Your task to perform on an android device: check storage Image 0: 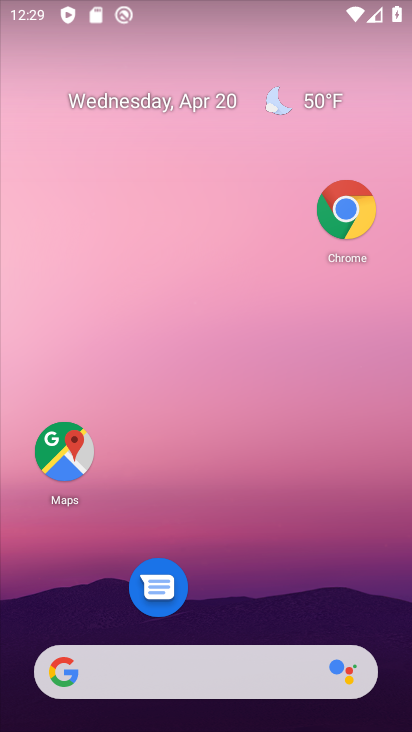
Step 0: drag from (237, 626) to (290, 201)
Your task to perform on an android device: check storage Image 1: 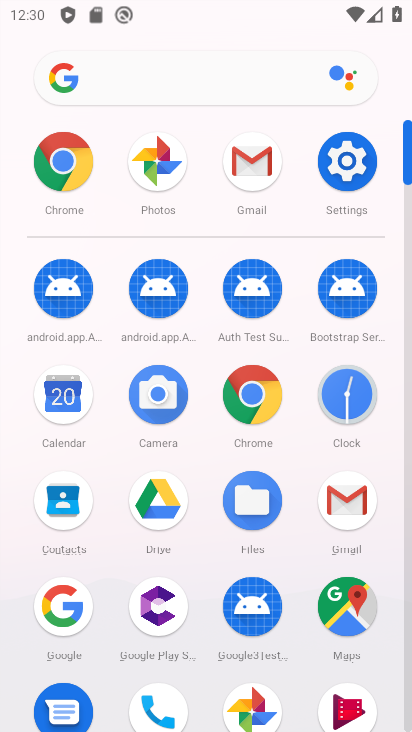
Step 1: click (341, 158)
Your task to perform on an android device: check storage Image 2: 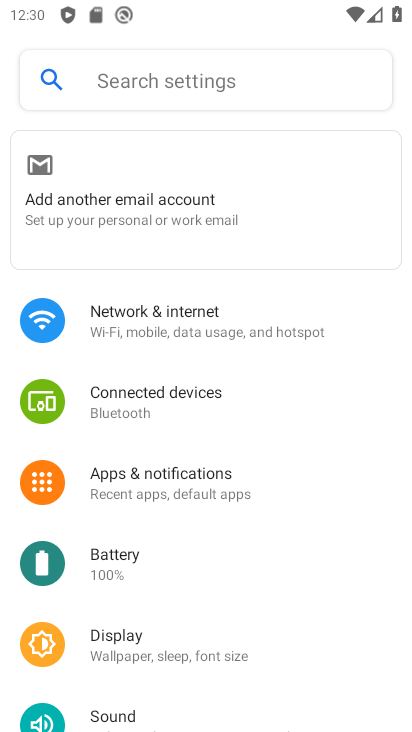
Step 2: drag from (135, 644) to (138, 415)
Your task to perform on an android device: check storage Image 3: 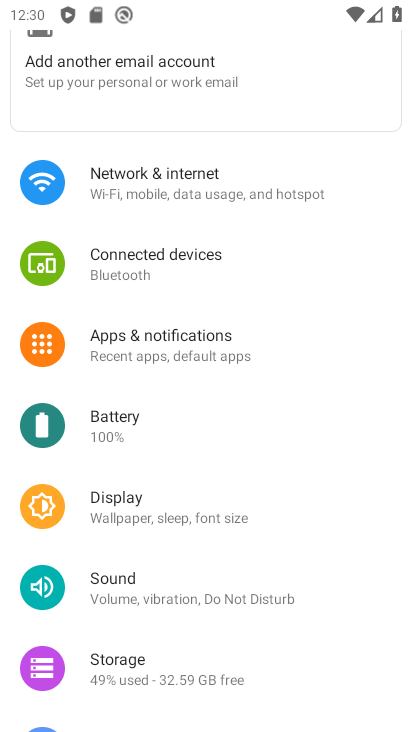
Step 3: click (139, 674)
Your task to perform on an android device: check storage Image 4: 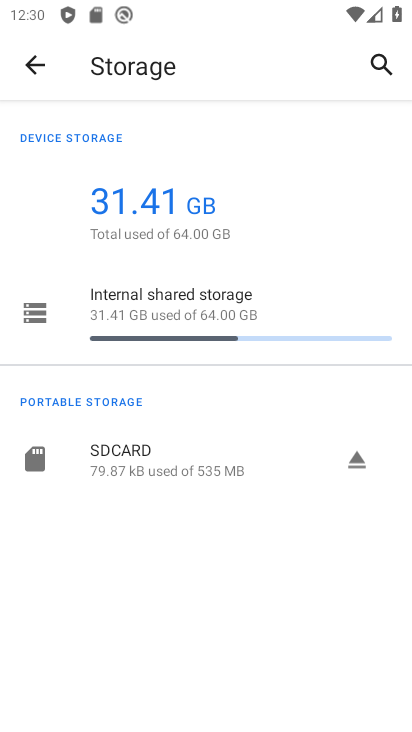
Step 4: click (146, 295)
Your task to perform on an android device: check storage Image 5: 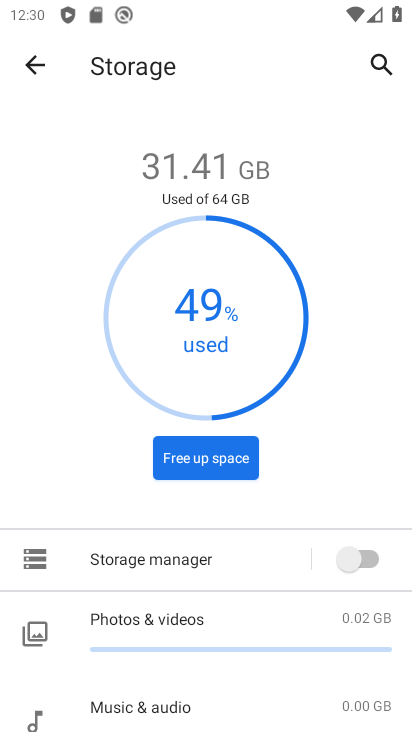
Step 5: task complete